Your task to perform on an android device: Check the weather Image 0: 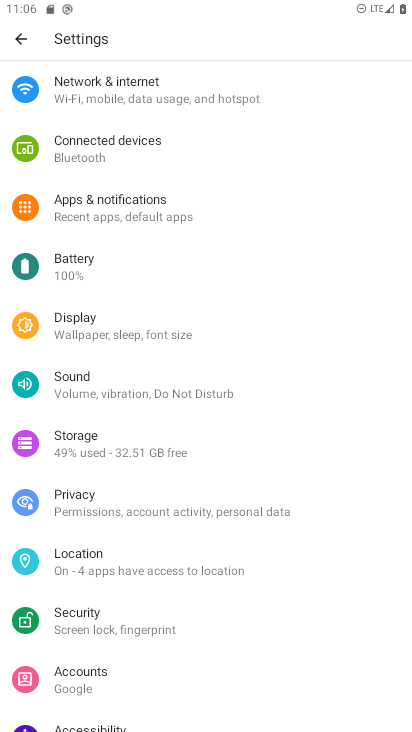
Step 0: press home button
Your task to perform on an android device: Check the weather Image 1: 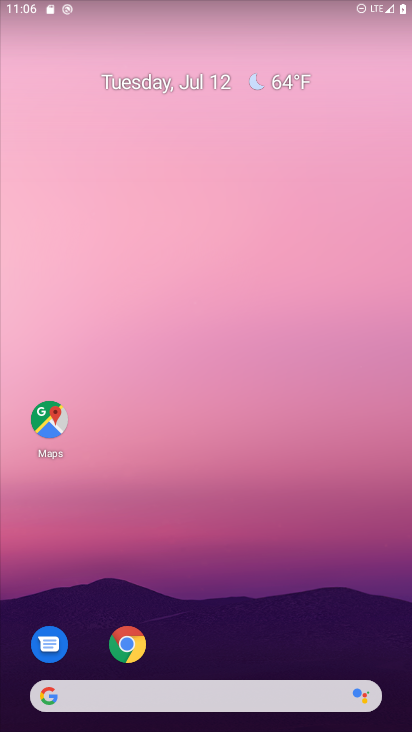
Step 1: click (229, 698)
Your task to perform on an android device: Check the weather Image 2: 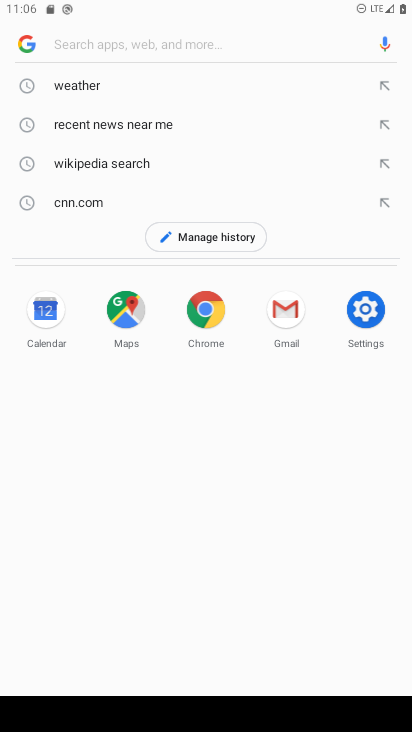
Step 2: click (91, 95)
Your task to perform on an android device: Check the weather Image 3: 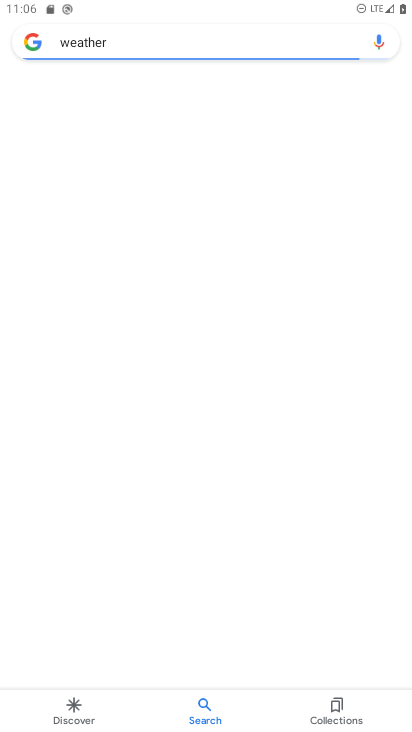
Step 3: task complete